Your task to perform on an android device: toggle translation in the chrome app Image 0: 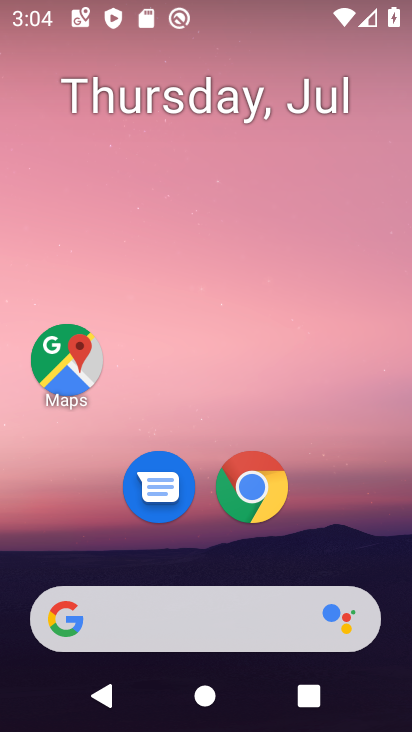
Step 0: click (235, 472)
Your task to perform on an android device: toggle translation in the chrome app Image 1: 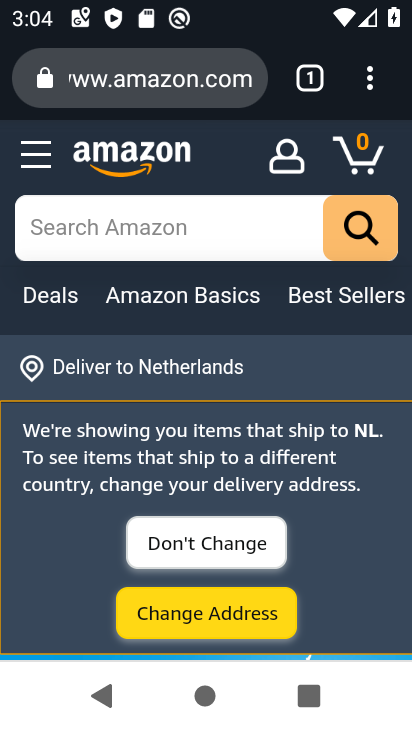
Step 1: drag from (367, 88) to (116, 549)
Your task to perform on an android device: toggle translation in the chrome app Image 2: 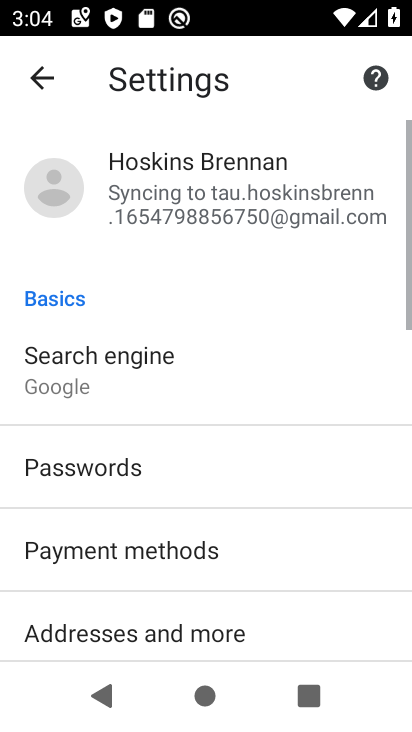
Step 2: drag from (101, 569) to (196, 3)
Your task to perform on an android device: toggle translation in the chrome app Image 3: 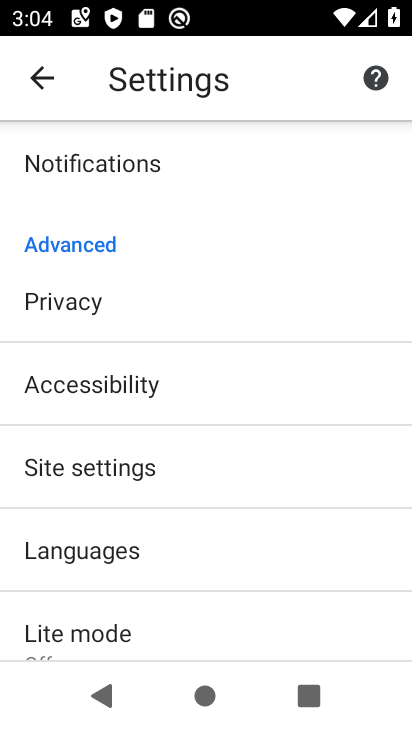
Step 3: click (99, 534)
Your task to perform on an android device: toggle translation in the chrome app Image 4: 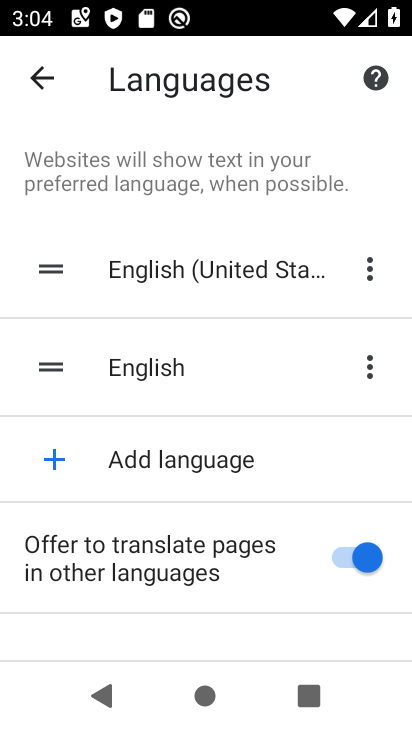
Step 4: click (356, 559)
Your task to perform on an android device: toggle translation in the chrome app Image 5: 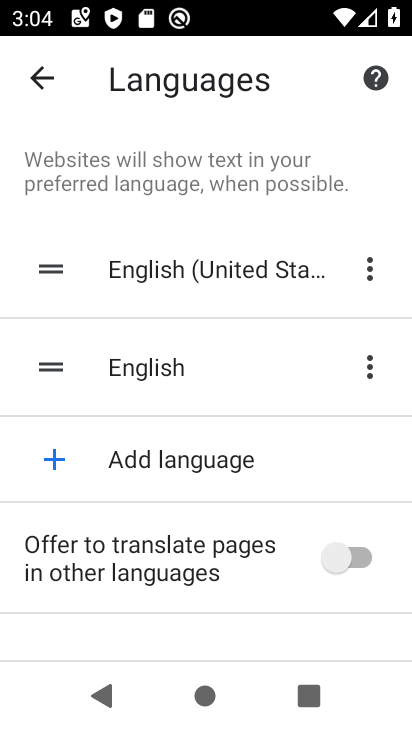
Step 5: task complete